Your task to perform on an android device: read, delete, or share a saved page in the chrome app Image 0: 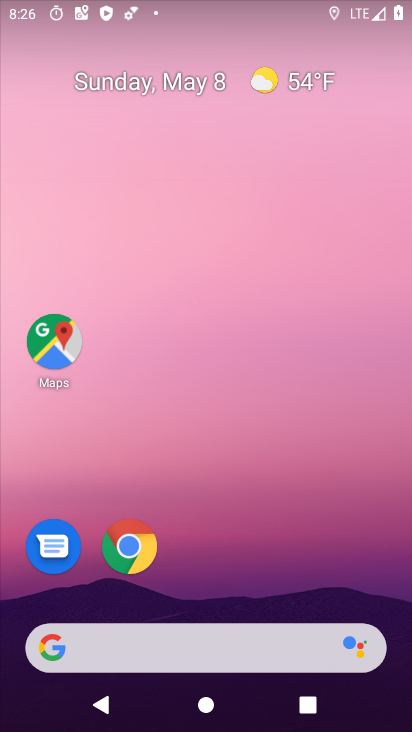
Step 0: click (140, 556)
Your task to perform on an android device: read, delete, or share a saved page in the chrome app Image 1: 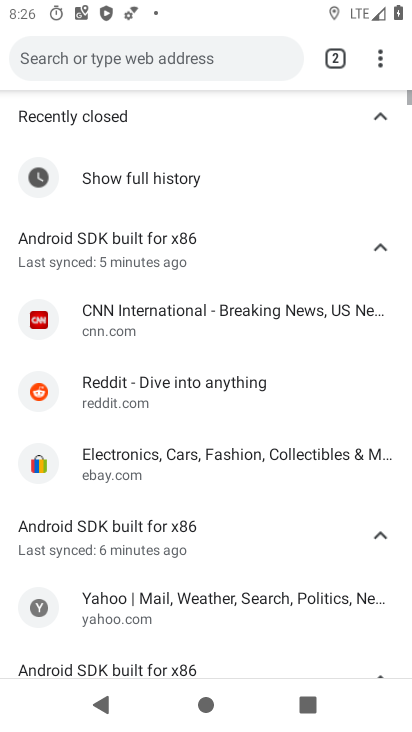
Step 1: click (377, 54)
Your task to perform on an android device: read, delete, or share a saved page in the chrome app Image 2: 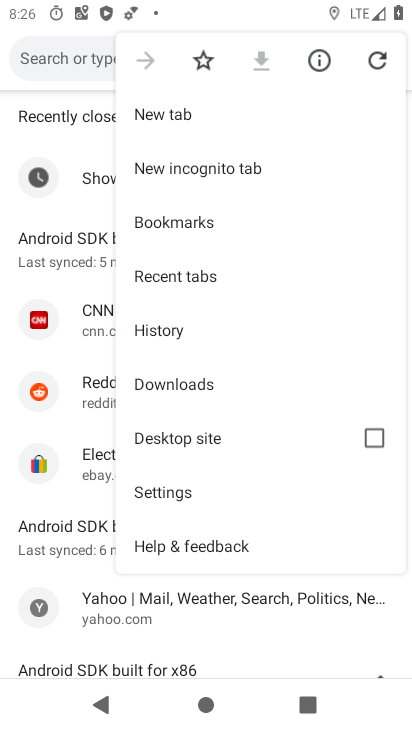
Step 2: click (189, 377)
Your task to perform on an android device: read, delete, or share a saved page in the chrome app Image 3: 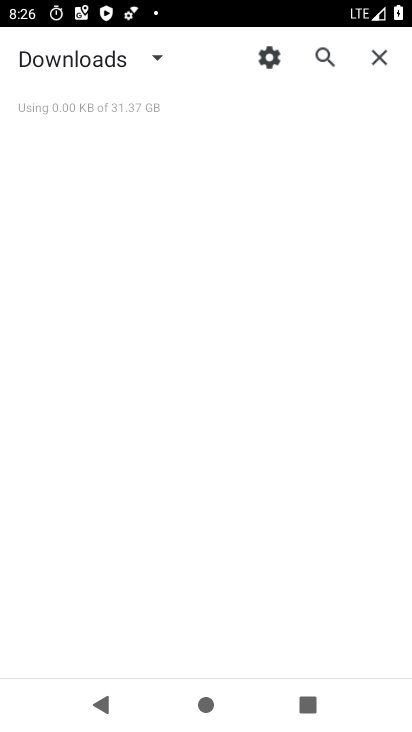
Step 3: task complete